Your task to perform on an android device: refresh tabs in the chrome app Image 0: 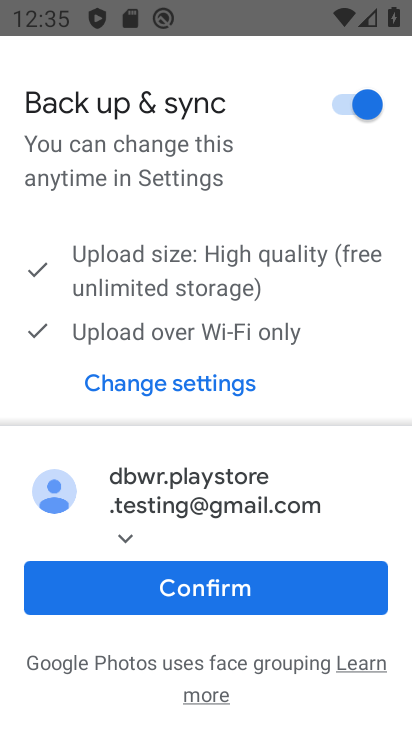
Step 0: press home button
Your task to perform on an android device: refresh tabs in the chrome app Image 1: 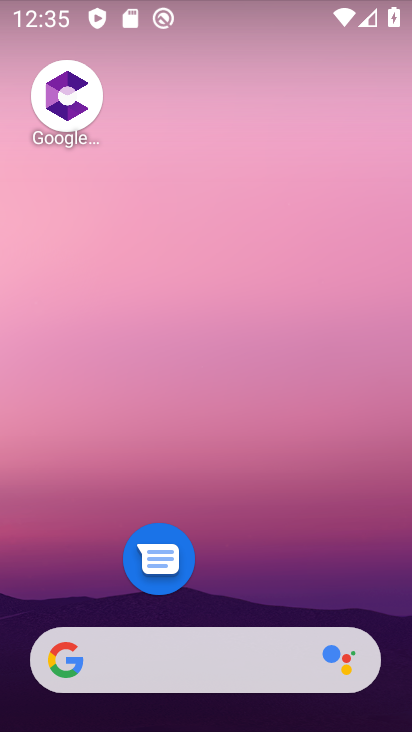
Step 1: drag from (218, 598) to (179, 42)
Your task to perform on an android device: refresh tabs in the chrome app Image 2: 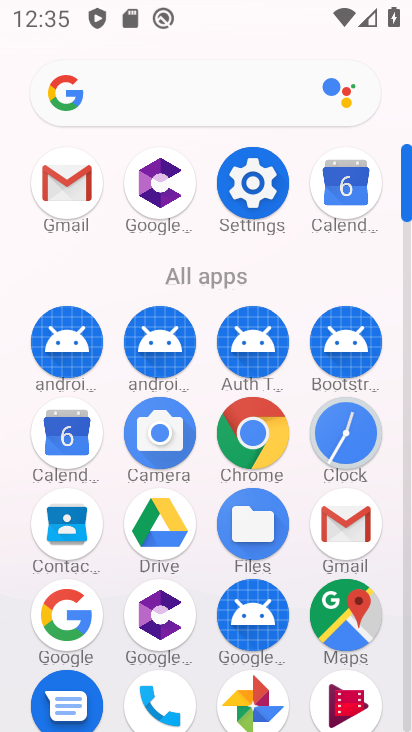
Step 2: click (277, 437)
Your task to perform on an android device: refresh tabs in the chrome app Image 3: 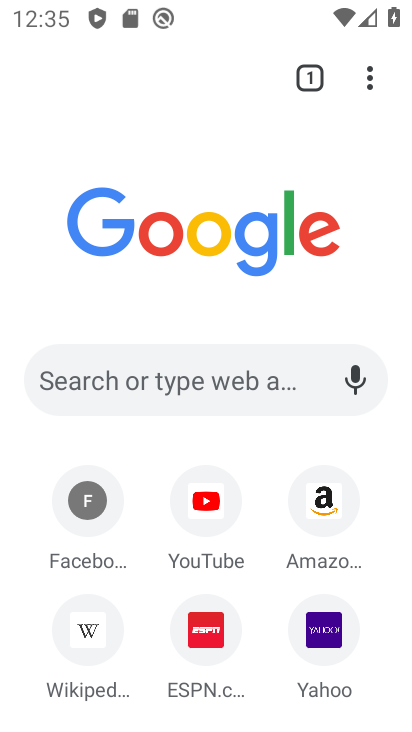
Step 3: click (362, 78)
Your task to perform on an android device: refresh tabs in the chrome app Image 4: 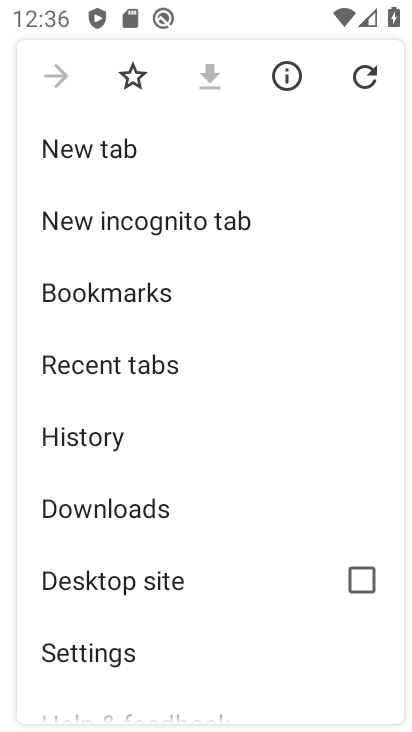
Step 4: click (362, 78)
Your task to perform on an android device: refresh tabs in the chrome app Image 5: 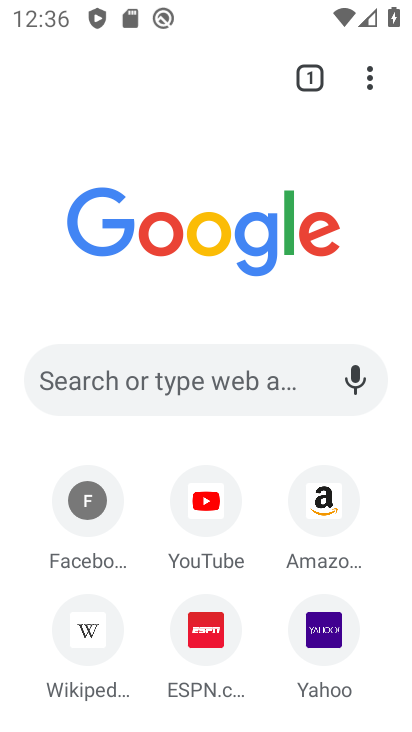
Step 5: task complete